Your task to perform on an android device: Open Maps and search for coffee Image 0: 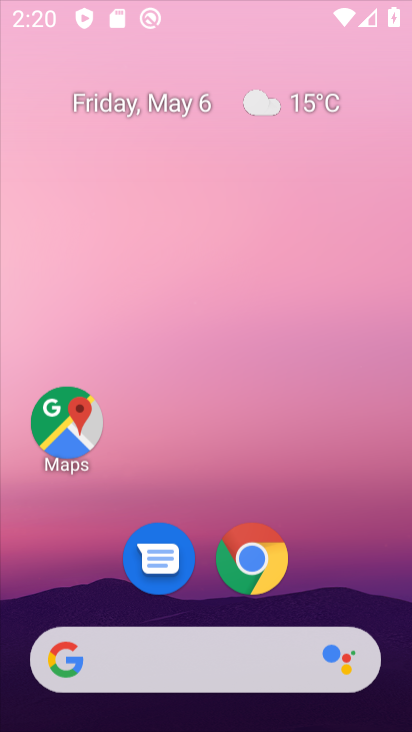
Step 0: drag from (318, 568) to (310, 263)
Your task to perform on an android device: Open Maps and search for coffee Image 1: 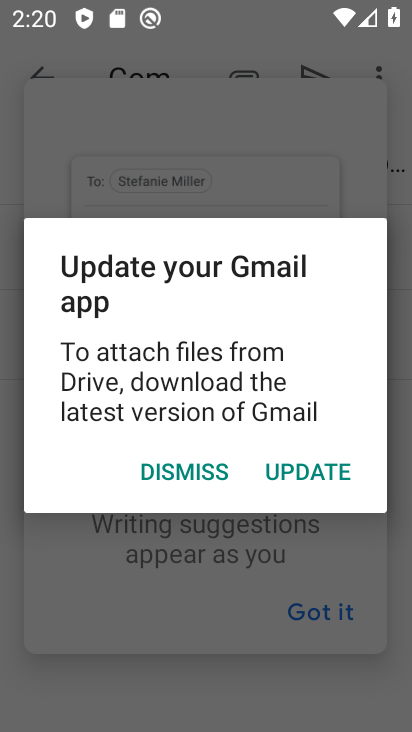
Step 1: press home button
Your task to perform on an android device: Open Maps and search for coffee Image 2: 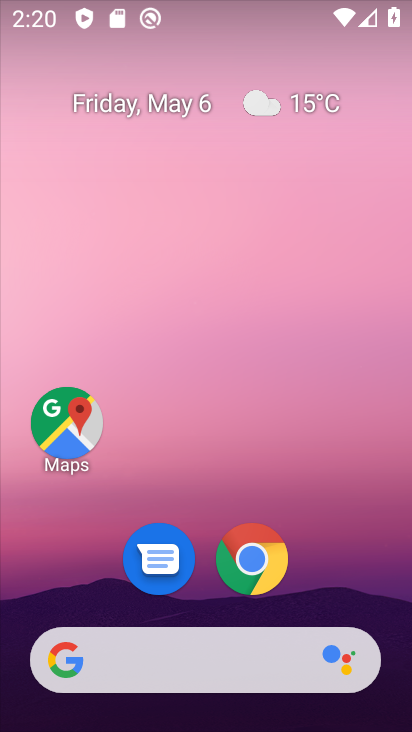
Step 2: drag from (325, 583) to (317, 190)
Your task to perform on an android device: Open Maps and search for coffee Image 3: 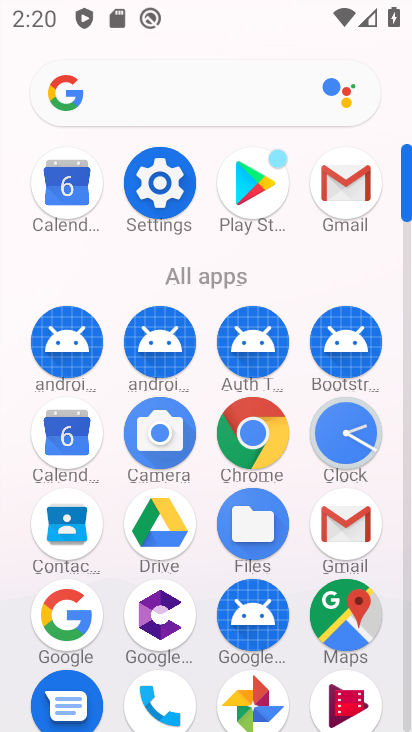
Step 3: click (336, 619)
Your task to perform on an android device: Open Maps and search for coffee Image 4: 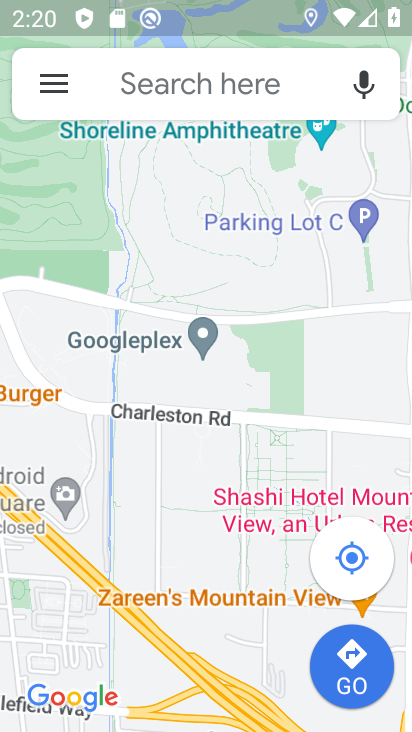
Step 4: task complete